Your task to perform on an android device: turn off wifi Image 0: 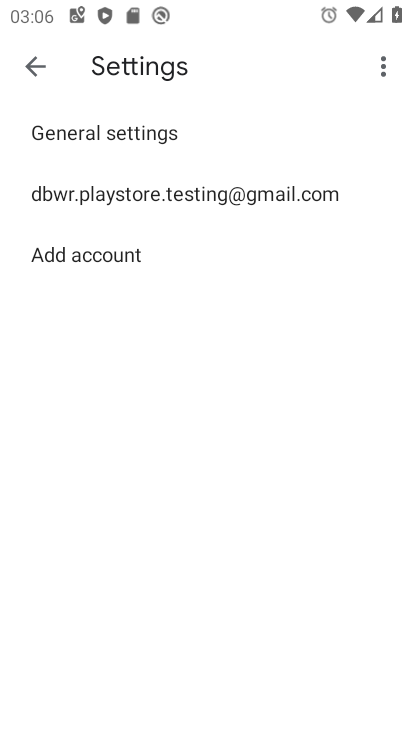
Step 0: press home button
Your task to perform on an android device: turn off wifi Image 1: 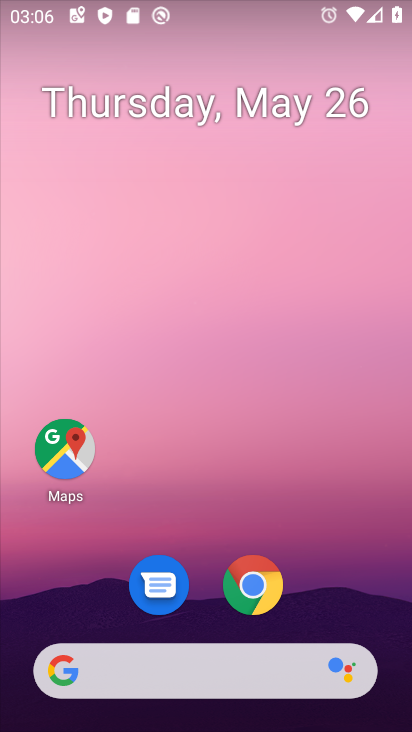
Step 1: drag from (222, 482) to (235, 55)
Your task to perform on an android device: turn off wifi Image 2: 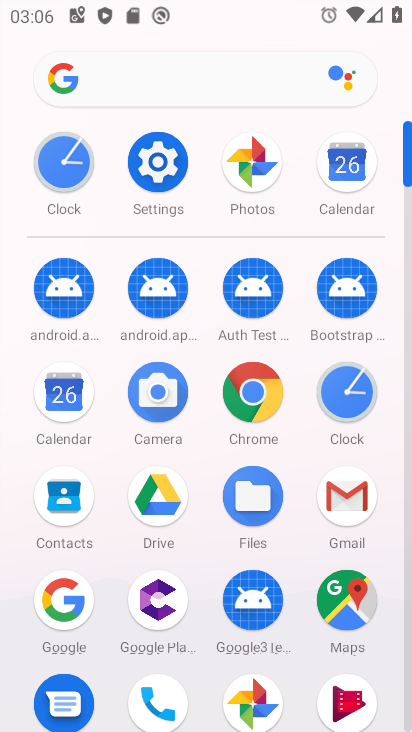
Step 2: click (166, 164)
Your task to perform on an android device: turn off wifi Image 3: 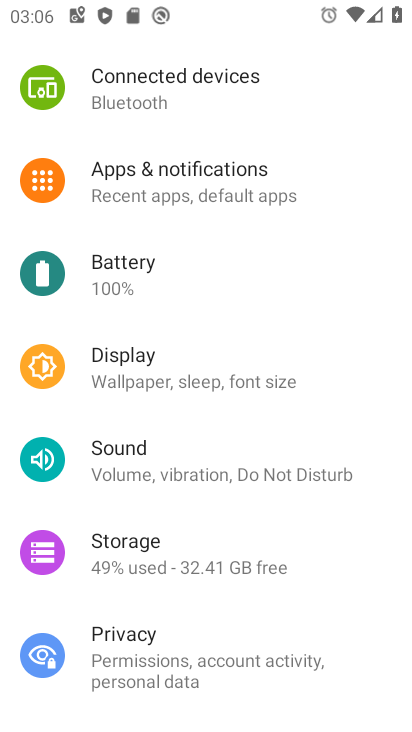
Step 3: drag from (222, 244) to (242, 588)
Your task to perform on an android device: turn off wifi Image 4: 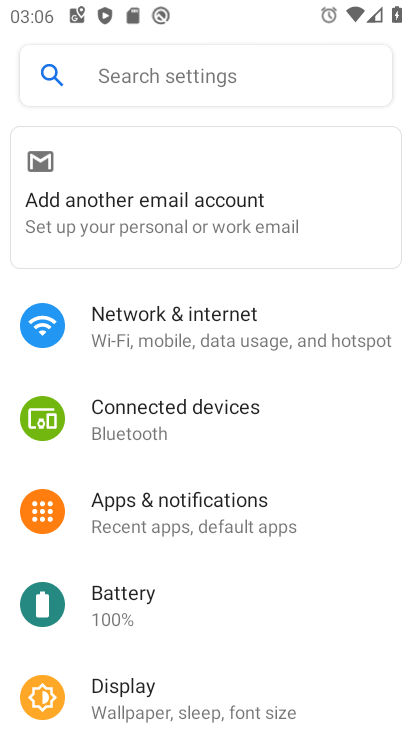
Step 4: click (180, 324)
Your task to perform on an android device: turn off wifi Image 5: 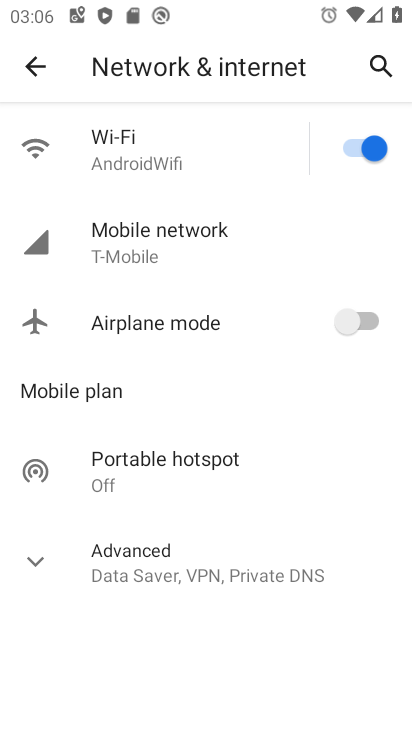
Step 5: click (360, 149)
Your task to perform on an android device: turn off wifi Image 6: 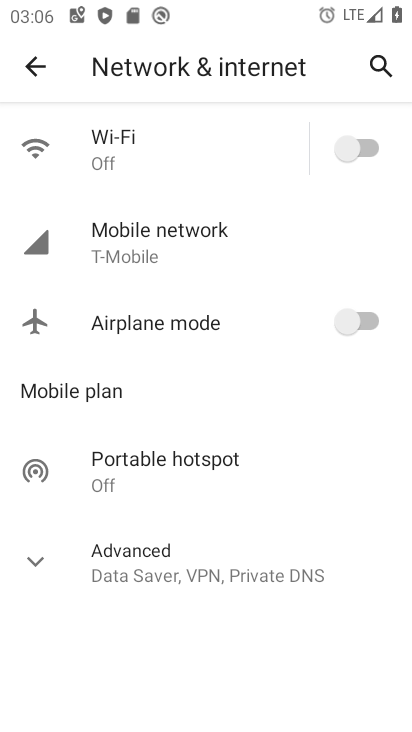
Step 6: task complete